Your task to perform on an android device: Show me popular games on the Play Store Image 0: 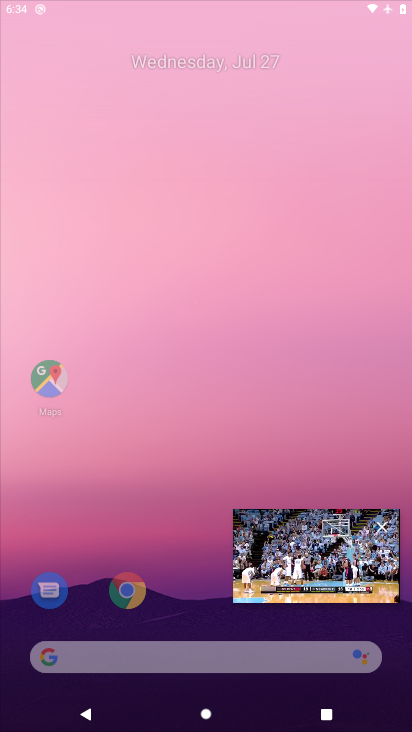
Step 0: press home button
Your task to perform on an android device: Show me popular games on the Play Store Image 1: 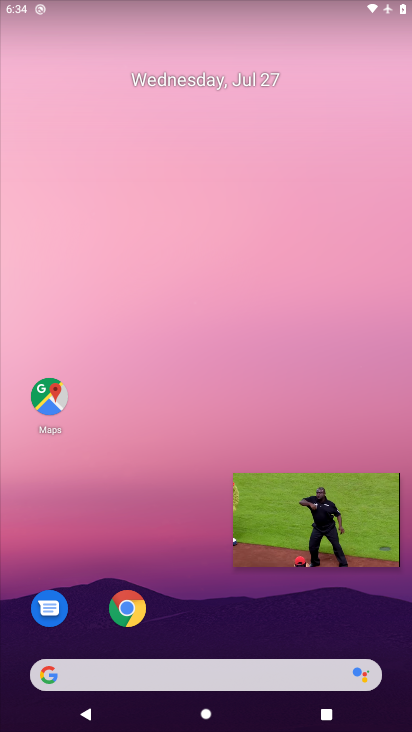
Step 1: click (342, 491)
Your task to perform on an android device: Show me popular games on the Play Store Image 2: 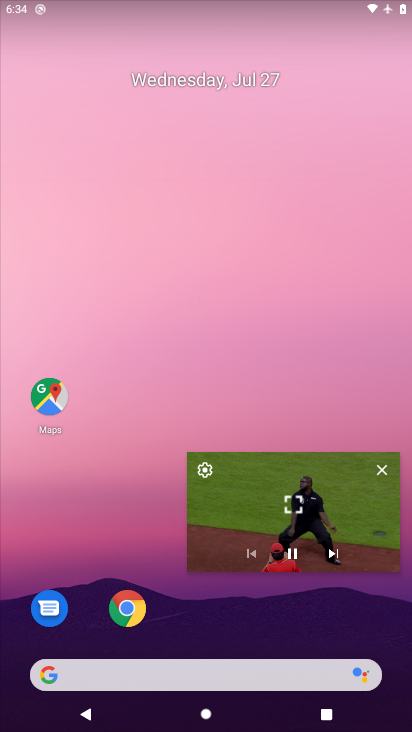
Step 2: press home button
Your task to perform on an android device: Show me popular games on the Play Store Image 3: 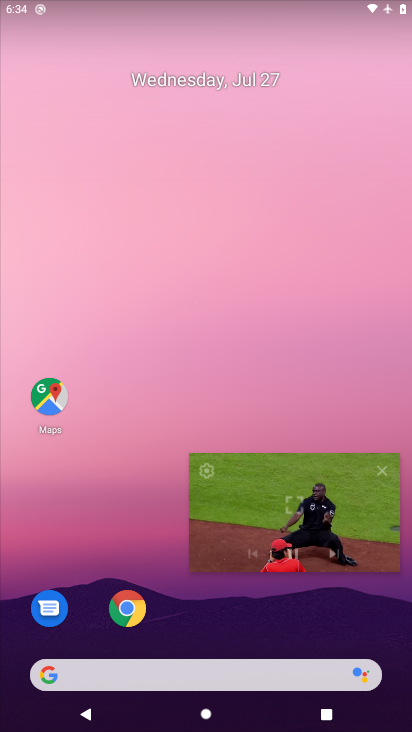
Step 3: click (381, 471)
Your task to perform on an android device: Show me popular games on the Play Store Image 4: 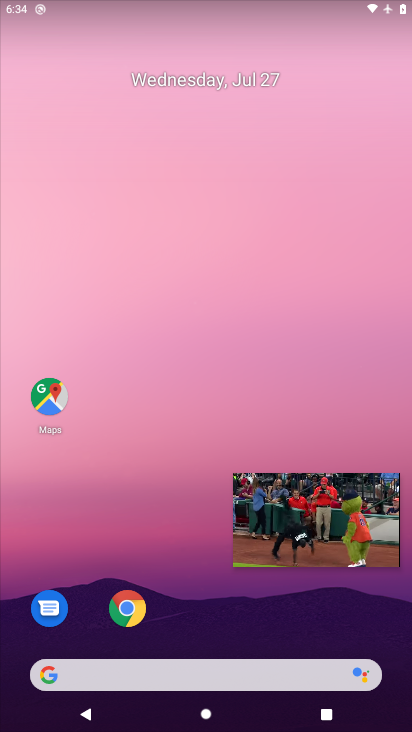
Step 4: click (386, 492)
Your task to perform on an android device: Show me popular games on the Play Store Image 5: 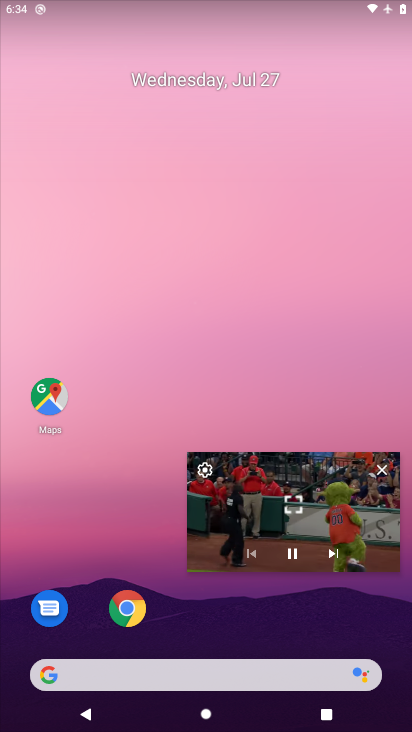
Step 5: click (305, 490)
Your task to perform on an android device: Show me popular games on the Play Store Image 6: 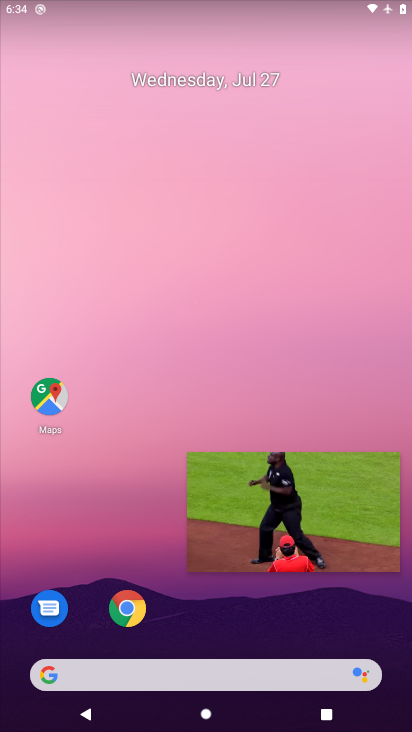
Step 6: click (379, 469)
Your task to perform on an android device: Show me popular games on the Play Store Image 7: 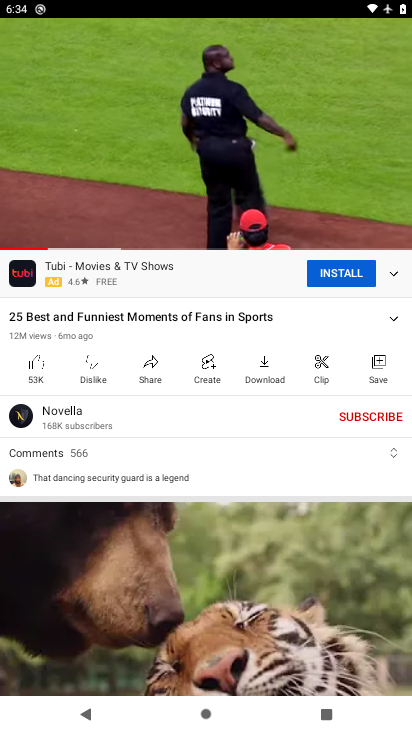
Step 7: press home button
Your task to perform on an android device: Show me popular games on the Play Store Image 8: 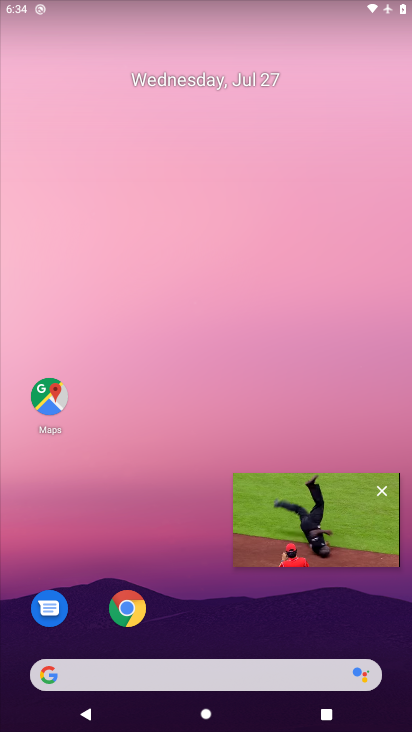
Step 8: click (396, 479)
Your task to perform on an android device: Show me popular games on the Play Store Image 9: 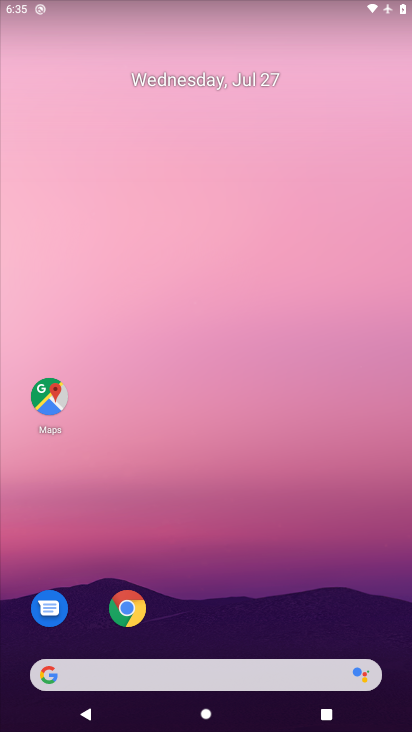
Step 9: drag from (251, 625) to (270, 356)
Your task to perform on an android device: Show me popular games on the Play Store Image 10: 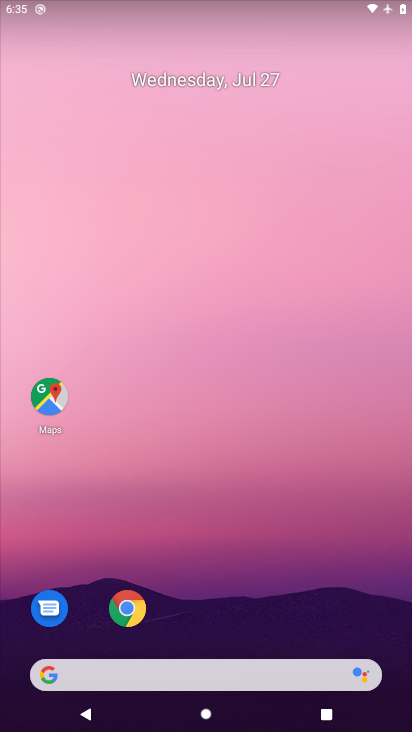
Step 10: drag from (206, 618) to (281, 9)
Your task to perform on an android device: Show me popular games on the Play Store Image 11: 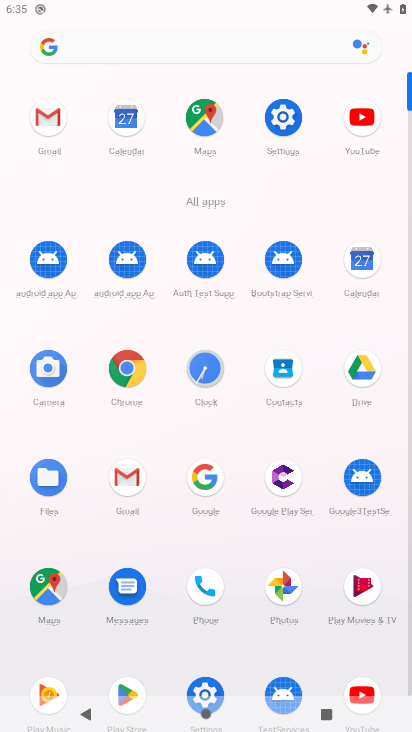
Step 11: click (129, 684)
Your task to perform on an android device: Show me popular games on the Play Store Image 12: 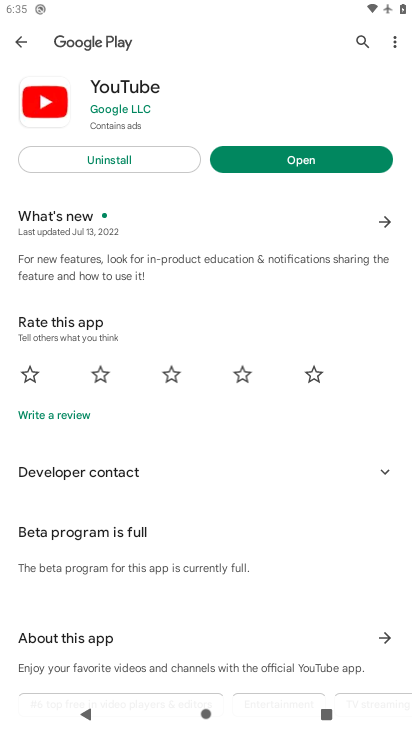
Step 12: click (23, 41)
Your task to perform on an android device: Show me popular games on the Play Store Image 13: 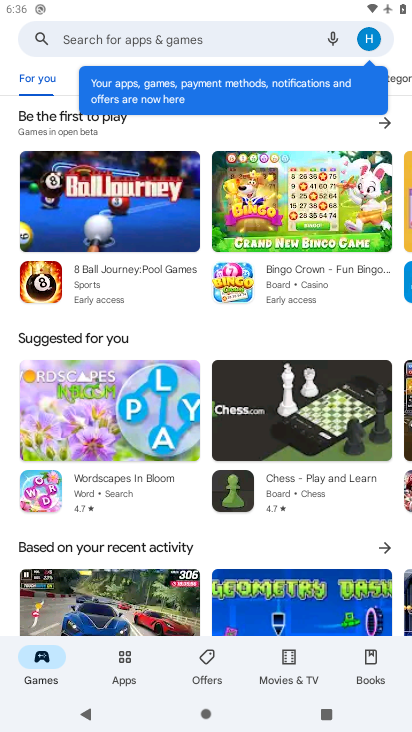
Step 13: click (393, 79)
Your task to perform on an android device: Show me popular games on the Play Store Image 14: 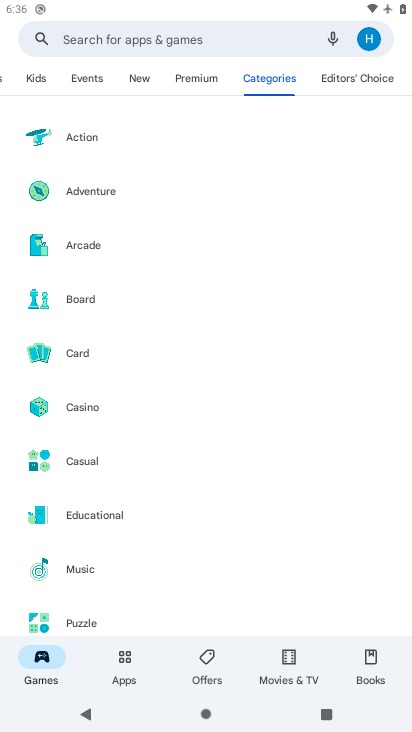
Step 14: task complete